Your task to perform on an android device: Play the last video I watched on Youtube Image 0: 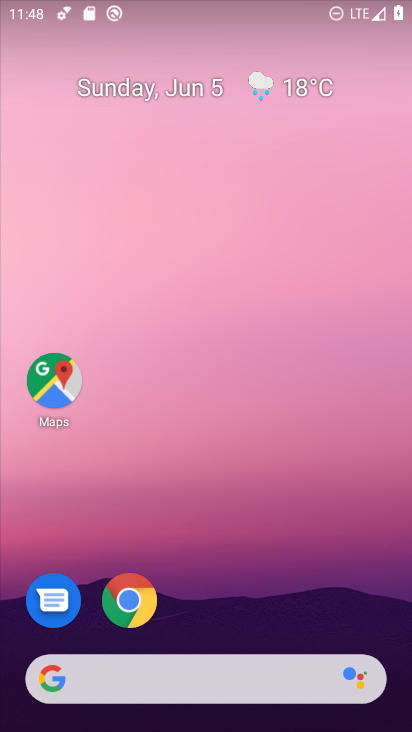
Step 0: drag from (217, 626) to (203, 145)
Your task to perform on an android device: Play the last video I watched on Youtube Image 1: 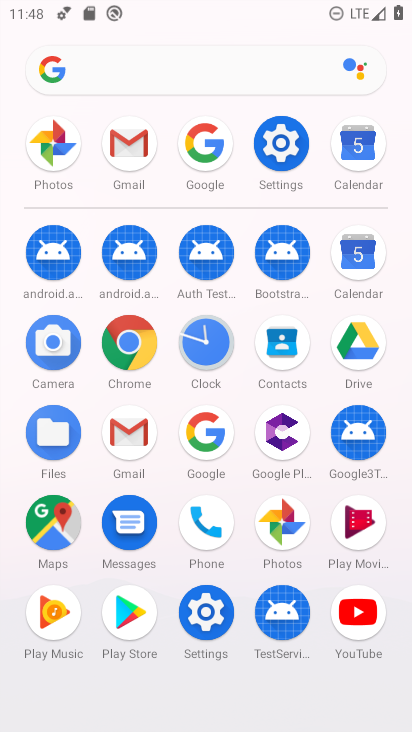
Step 1: click (340, 590)
Your task to perform on an android device: Play the last video I watched on Youtube Image 2: 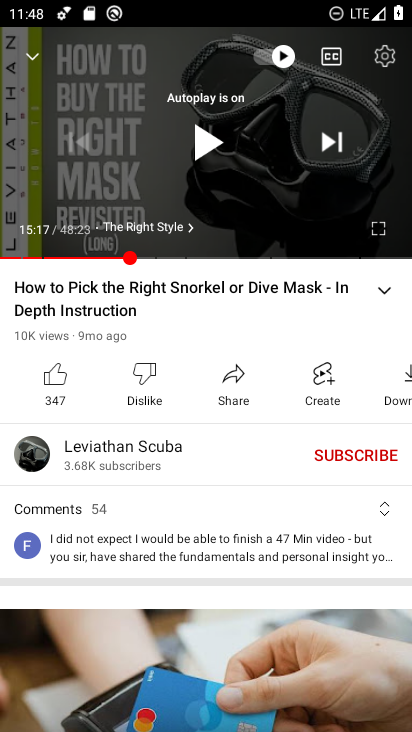
Step 2: click (209, 145)
Your task to perform on an android device: Play the last video I watched on Youtube Image 3: 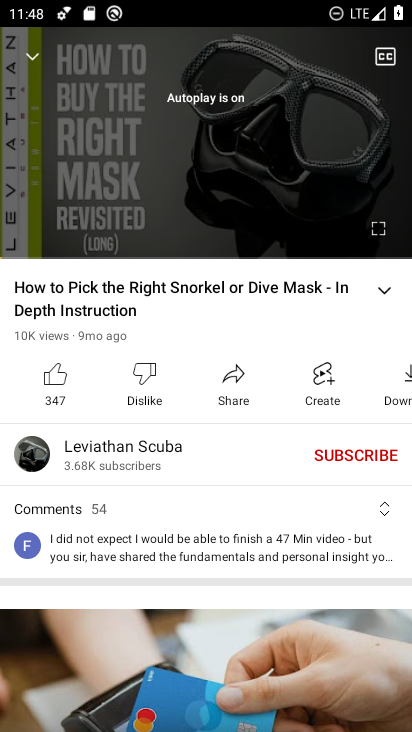
Step 3: task complete